Your task to perform on an android device: Open sound settings Image 0: 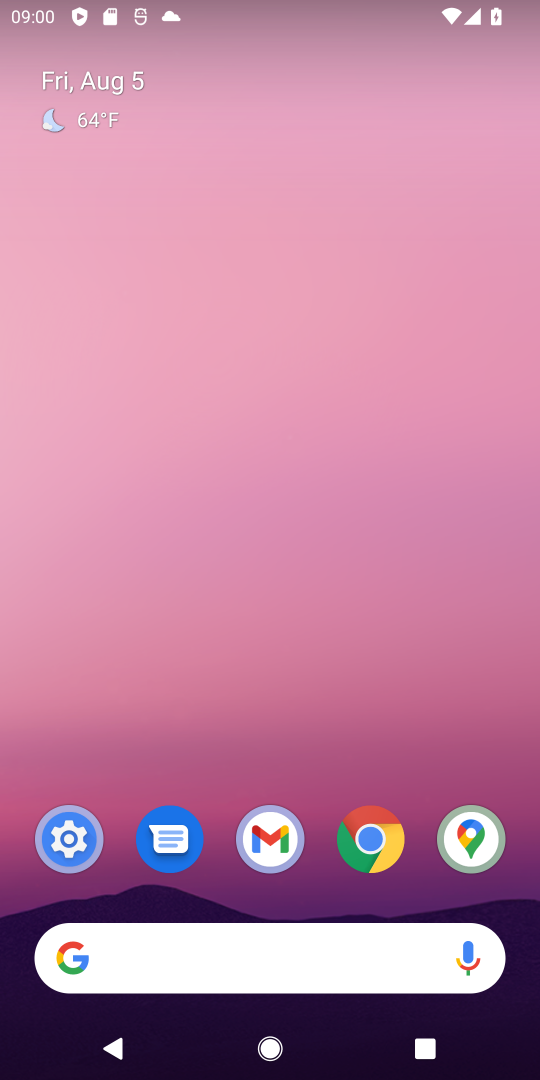
Step 0: drag from (310, 826) to (310, 124)
Your task to perform on an android device: Open sound settings Image 1: 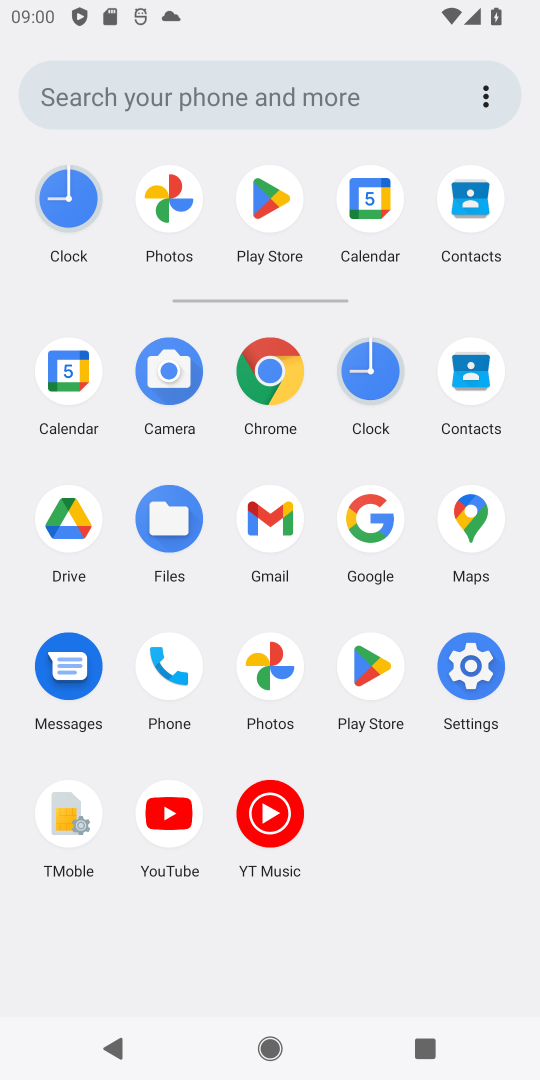
Step 1: click (472, 669)
Your task to perform on an android device: Open sound settings Image 2: 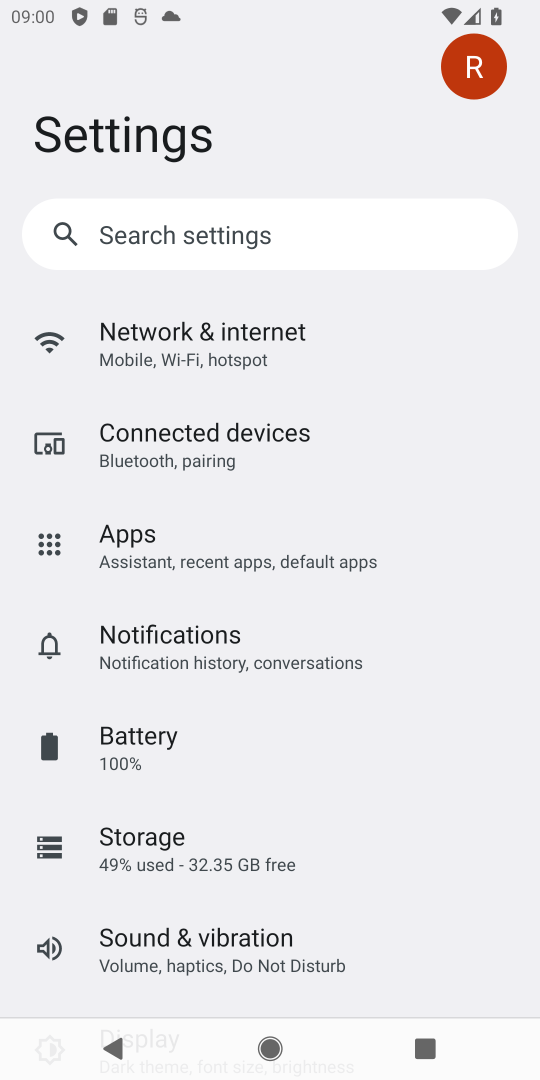
Step 2: drag from (174, 824) to (202, 344)
Your task to perform on an android device: Open sound settings Image 3: 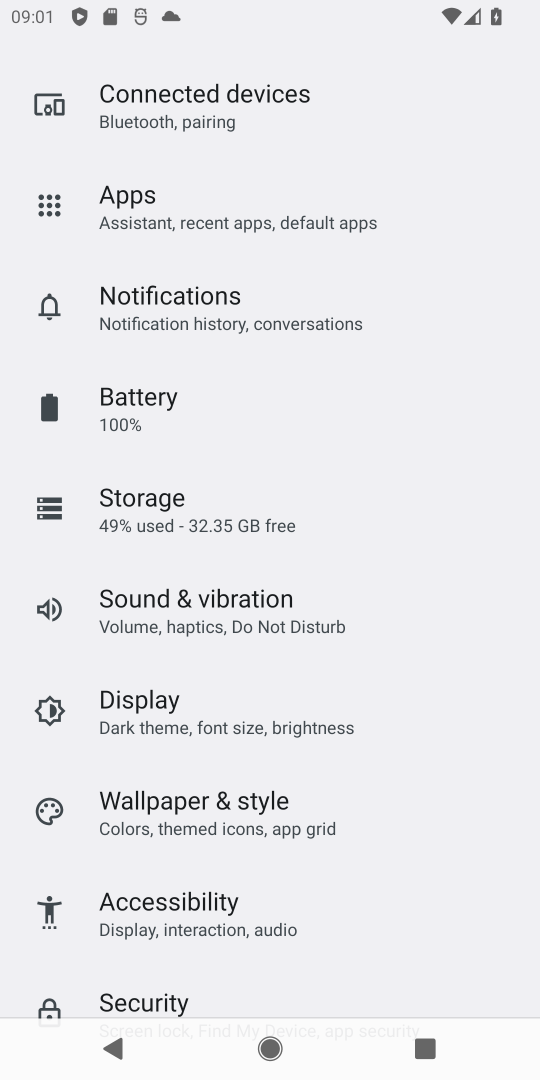
Step 3: click (170, 604)
Your task to perform on an android device: Open sound settings Image 4: 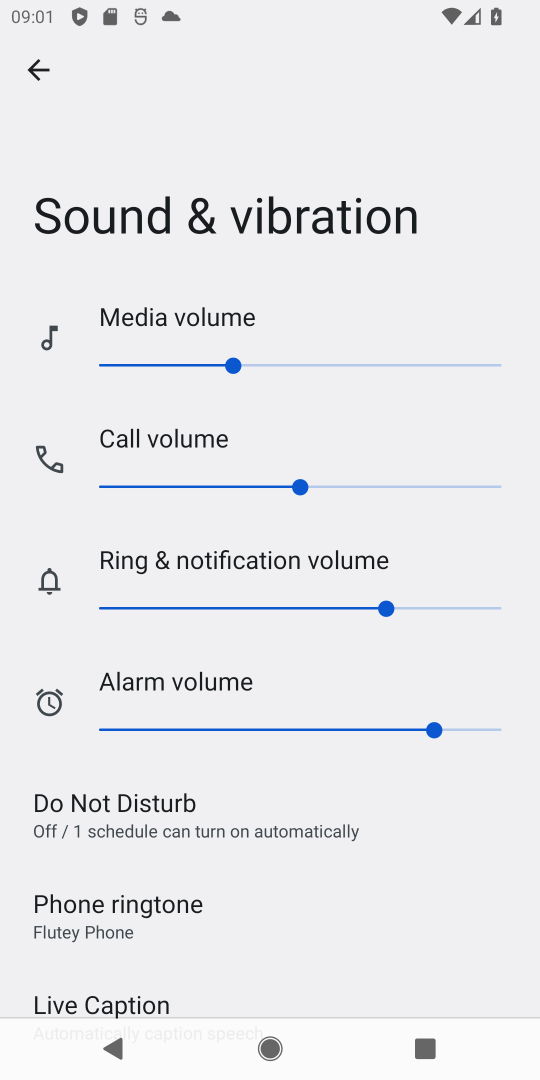
Step 4: task complete